Your task to perform on an android device: Go to Maps Image 0: 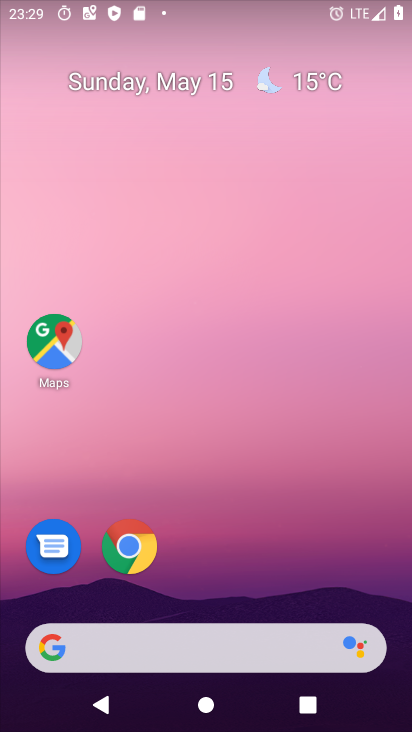
Step 0: drag from (227, 481) to (137, 232)
Your task to perform on an android device: Go to Maps Image 1: 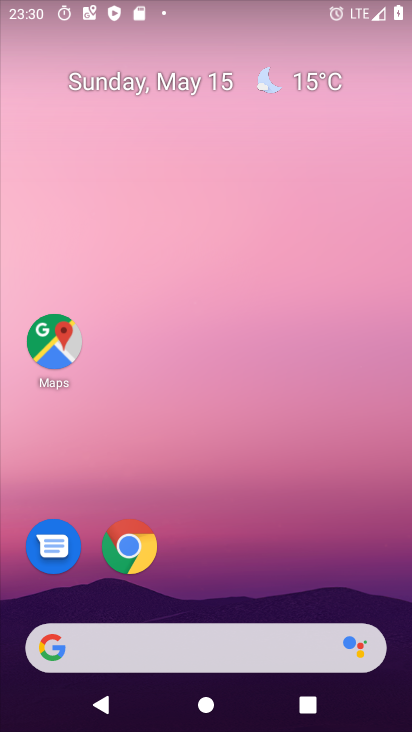
Step 1: drag from (305, 688) to (198, 179)
Your task to perform on an android device: Go to Maps Image 2: 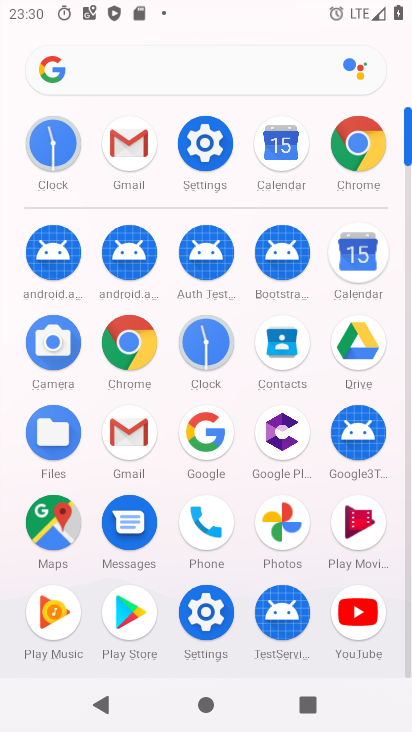
Step 2: click (53, 523)
Your task to perform on an android device: Go to Maps Image 3: 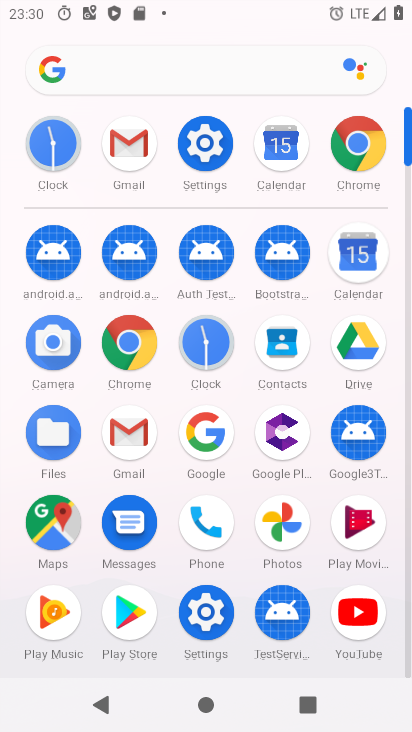
Step 3: click (53, 523)
Your task to perform on an android device: Go to Maps Image 4: 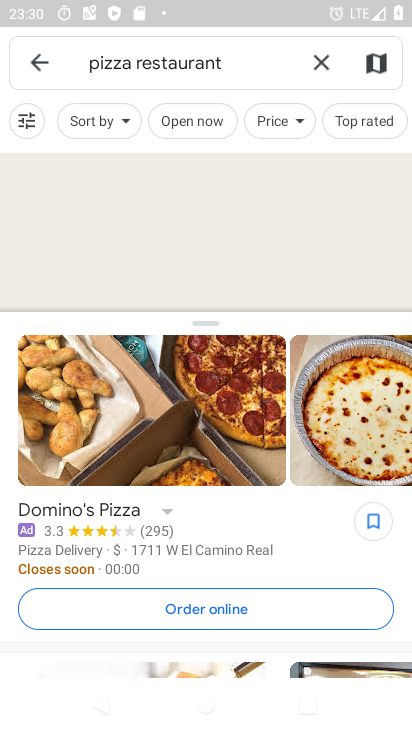
Step 4: click (320, 59)
Your task to perform on an android device: Go to Maps Image 5: 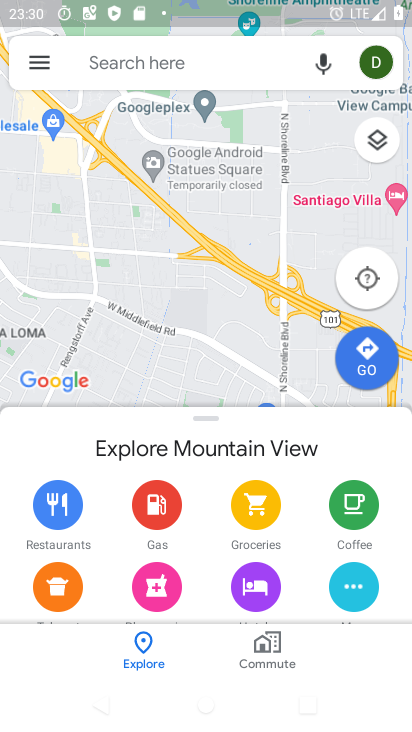
Step 5: task complete